Your task to perform on an android device: Go to Amazon Image 0: 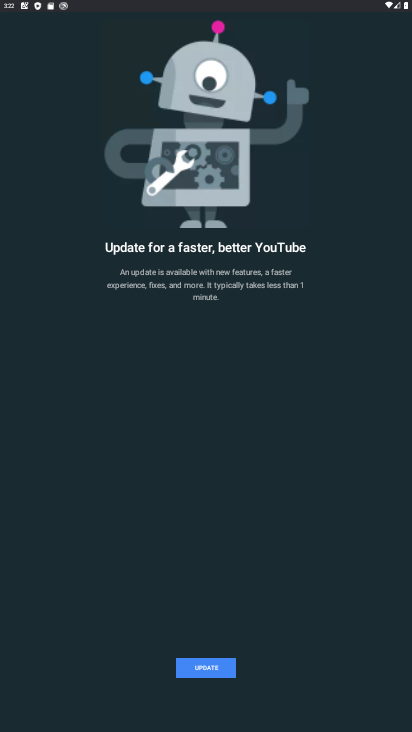
Step 0: press home button
Your task to perform on an android device: Go to Amazon Image 1: 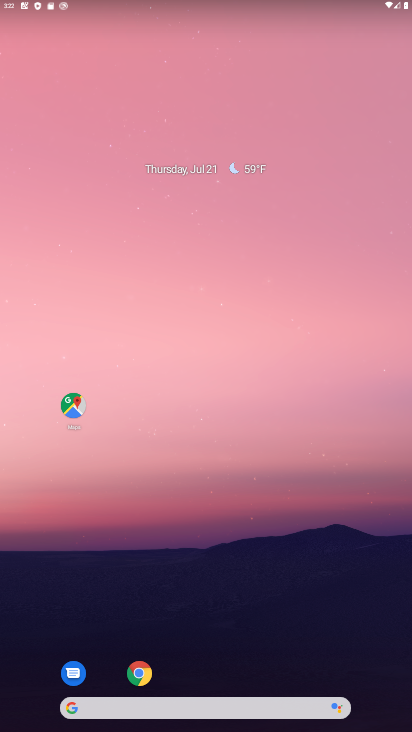
Step 1: drag from (377, 655) to (370, 616)
Your task to perform on an android device: Go to Amazon Image 2: 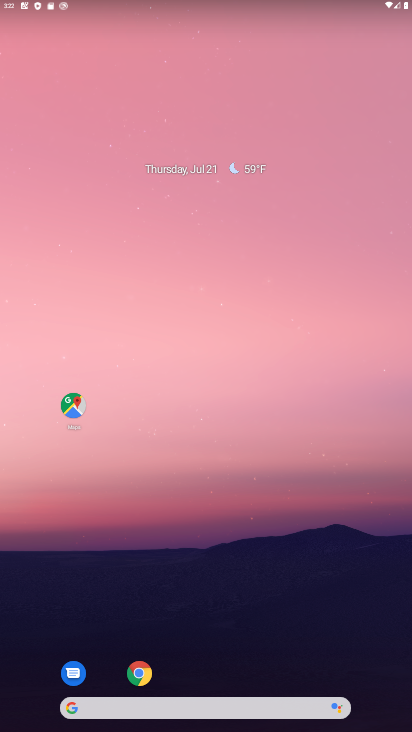
Step 2: click (139, 674)
Your task to perform on an android device: Go to Amazon Image 3: 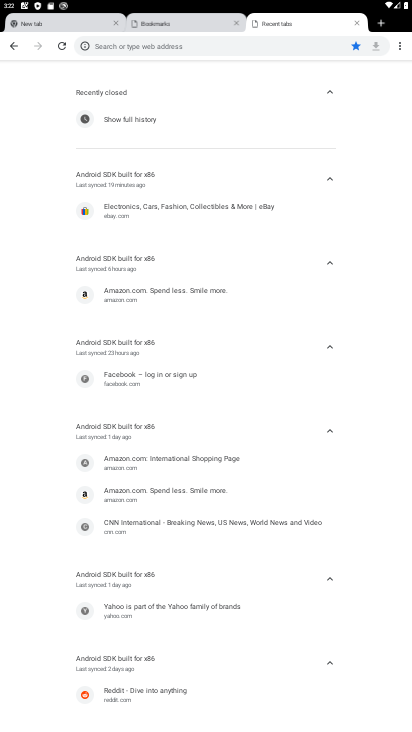
Step 3: click (147, 42)
Your task to perform on an android device: Go to Amazon Image 4: 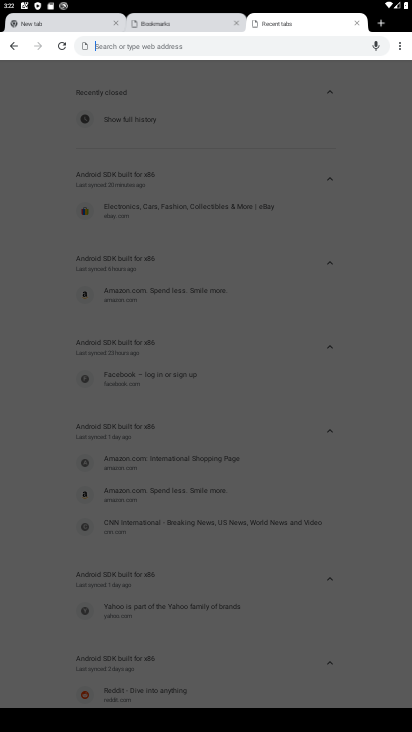
Step 4: type "amazon"
Your task to perform on an android device: Go to Amazon Image 5: 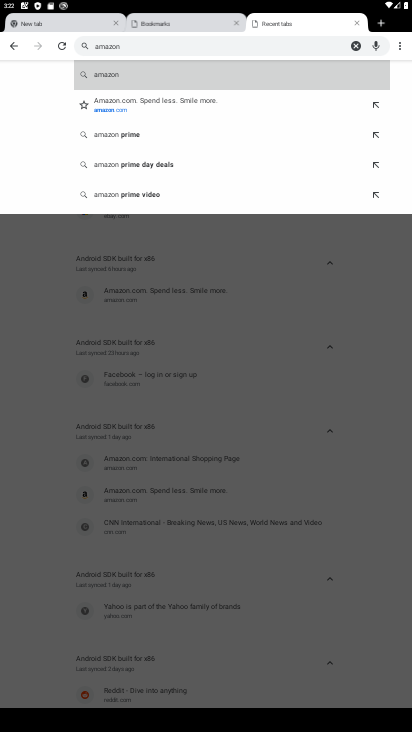
Step 5: click (106, 74)
Your task to perform on an android device: Go to Amazon Image 6: 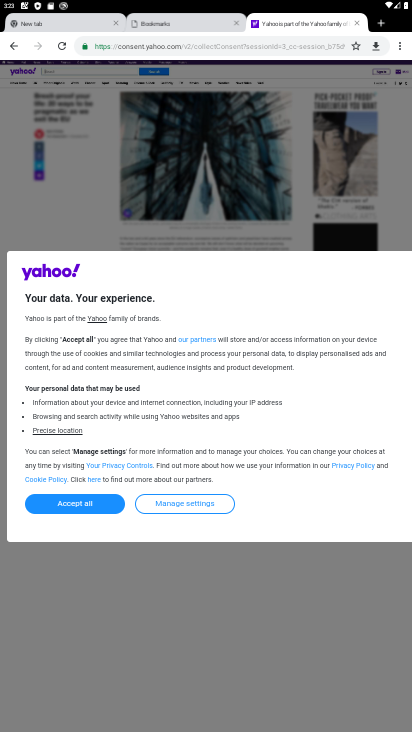
Step 6: click (64, 502)
Your task to perform on an android device: Go to Amazon Image 7: 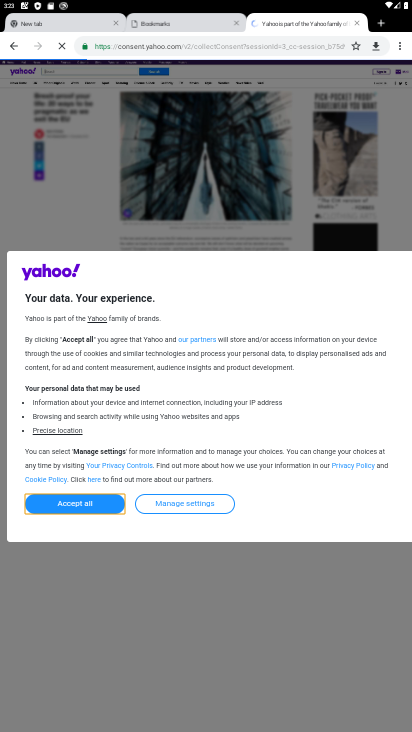
Step 7: click (64, 502)
Your task to perform on an android device: Go to Amazon Image 8: 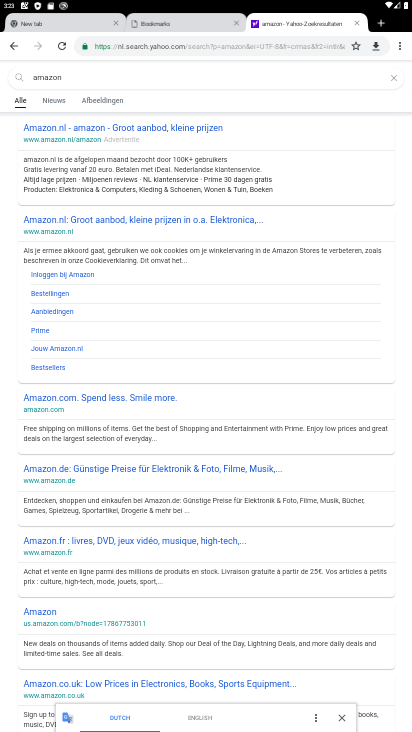
Step 8: click (51, 133)
Your task to perform on an android device: Go to Amazon Image 9: 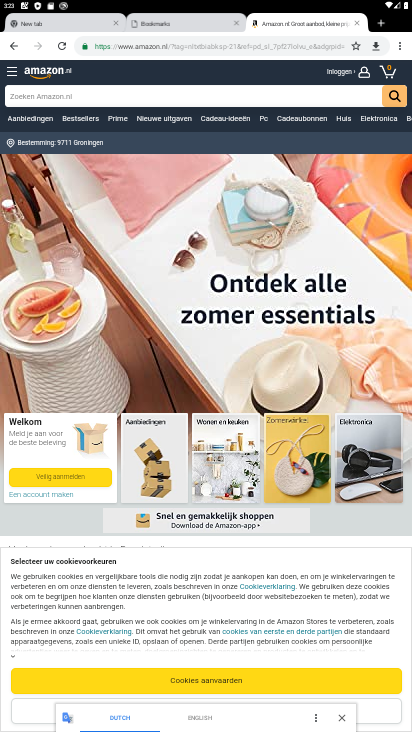
Step 9: click (197, 681)
Your task to perform on an android device: Go to Amazon Image 10: 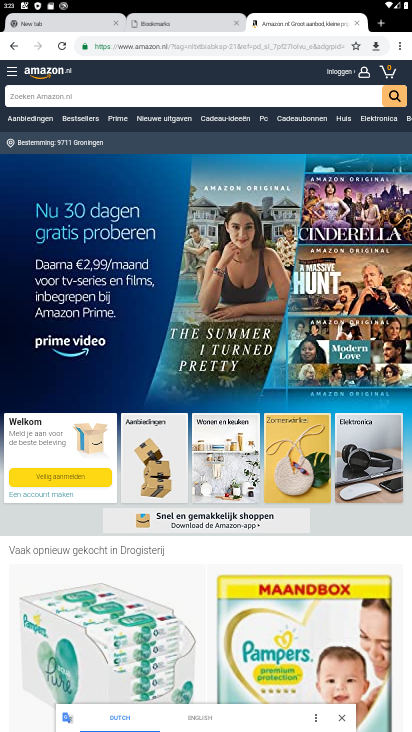
Step 10: task complete